Your task to perform on an android device: What's the weather going to be tomorrow? Image 0: 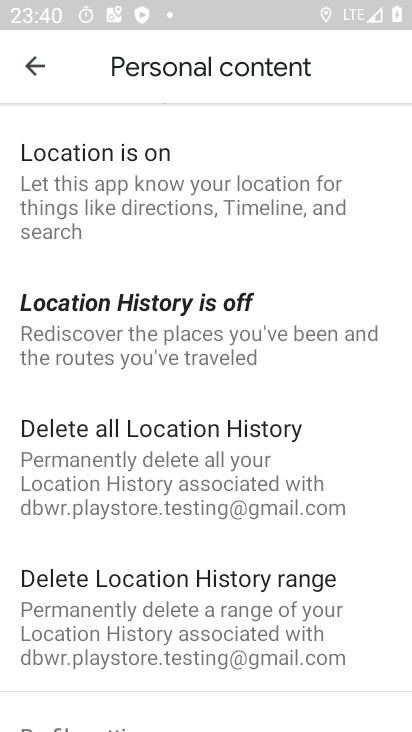
Step 0: press home button
Your task to perform on an android device: What's the weather going to be tomorrow? Image 1: 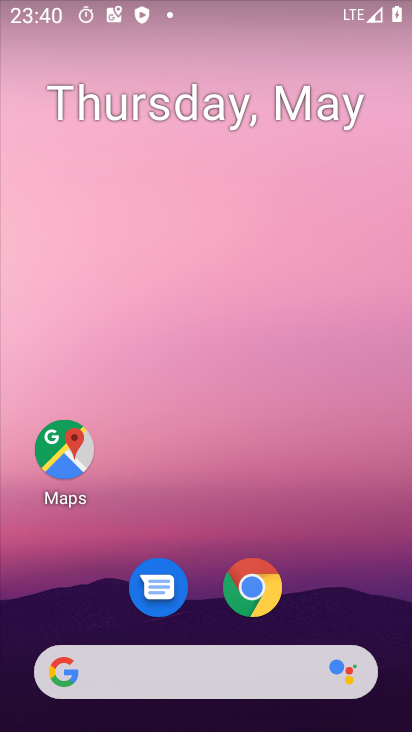
Step 1: click (107, 668)
Your task to perform on an android device: What's the weather going to be tomorrow? Image 2: 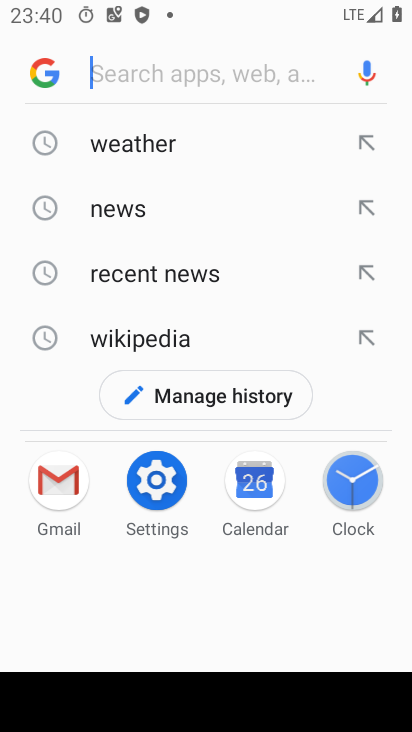
Step 2: click (116, 153)
Your task to perform on an android device: What's the weather going to be tomorrow? Image 3: 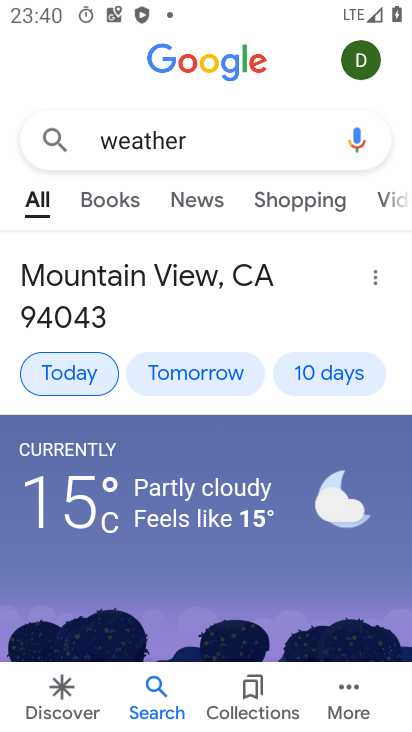
Step 3: click (187, 375)
Your task to perform on an android device: What's the weather going to be tomorrow? Image 4: 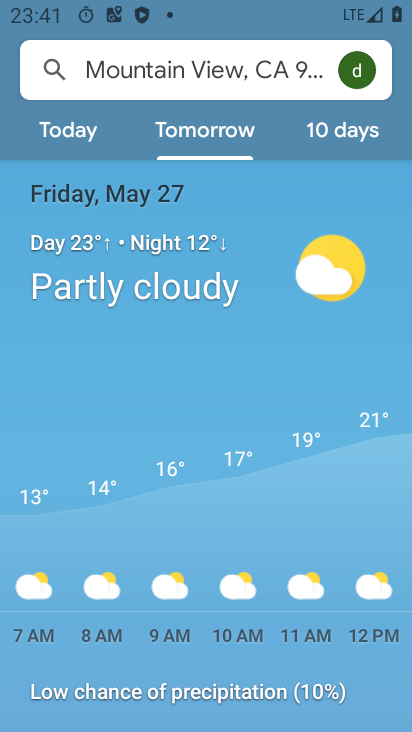
Step 4: task complete